Your task to perform on an android device: delete browsing data in the chrome app Image 0: 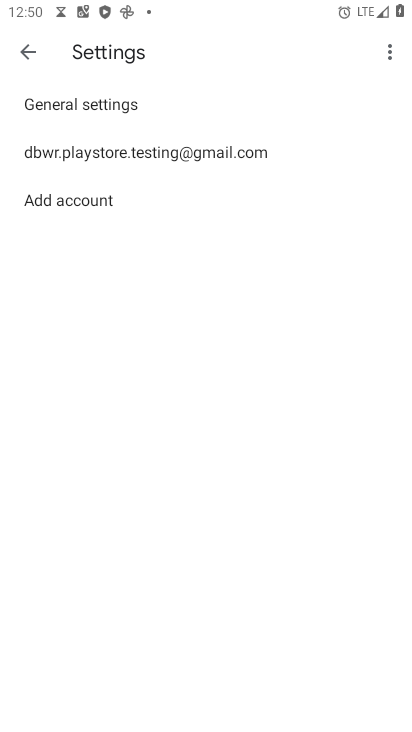
Step 0: press home button
Your task to perform on an android device: delete browsing data in the chrome app Image 1: 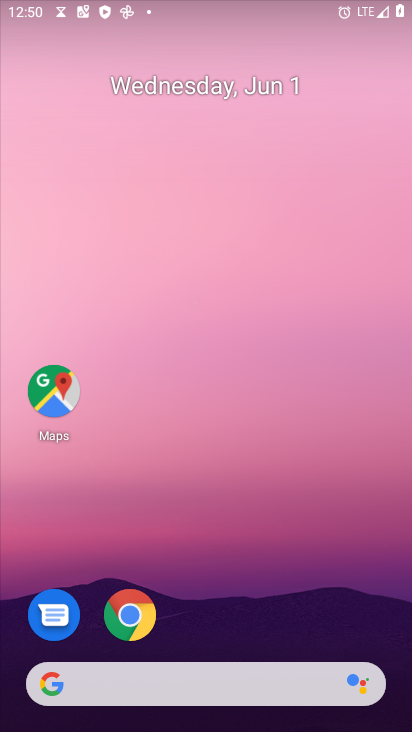
Step 1: drag from (370, 500) to (266, 8)
Your task to perform on an android device: delete browsing data in the chrome app Image 2: 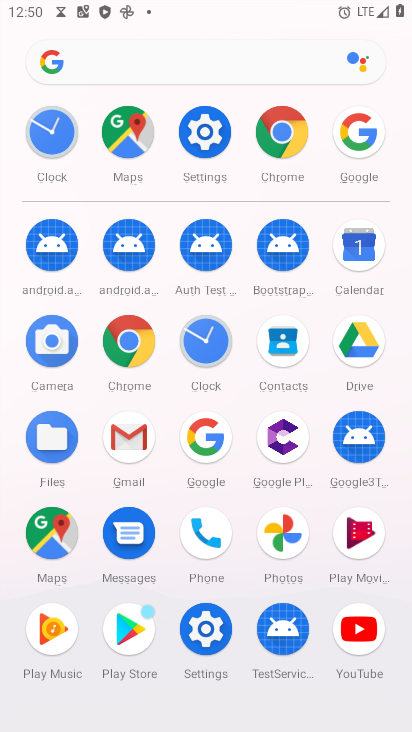
Step 2: click (277, 136)
Your task to perform on an android device: delete browsing data in the chrome app Image 3: 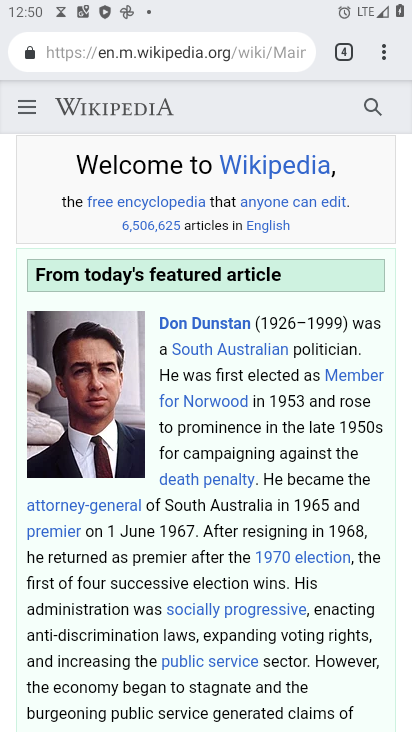
Step 3: drag from (379, 57) to (200, 278)
Your task to perform on an android device: delete browsing data in the chrome app Image 4: 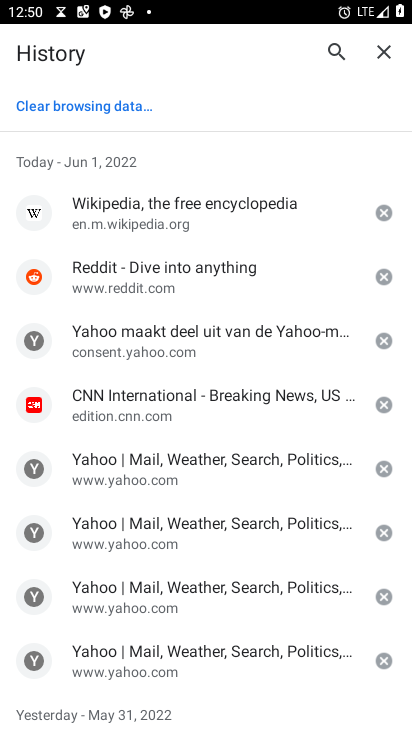
Step 4: click (90, 110)
Your task to perform on an android device: delete browsing data in the chrome app Image 5: 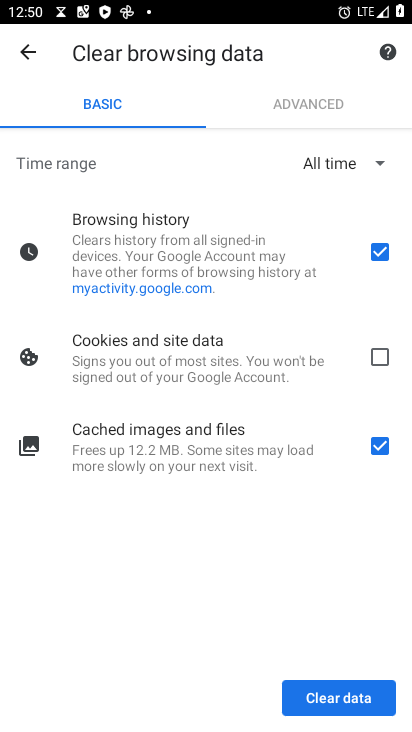
Step 5: click (386, 449)
Your task to perform on an android device: delete browsing data in the chrome app Image 6: 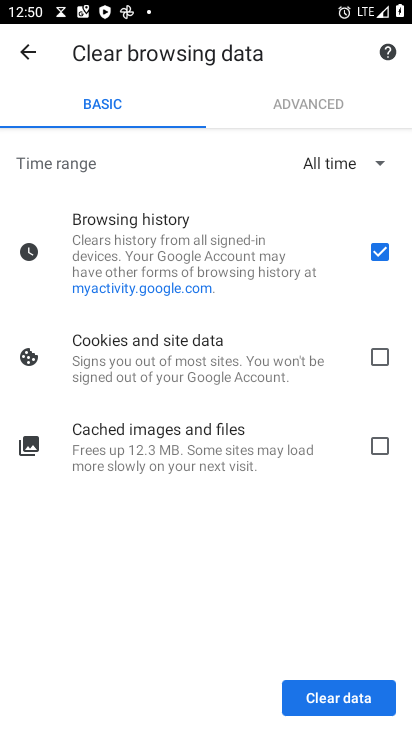
Step 6: click (362, 682)
Your task to perform on an android device: delete browsing data in the chrome app Image 7: 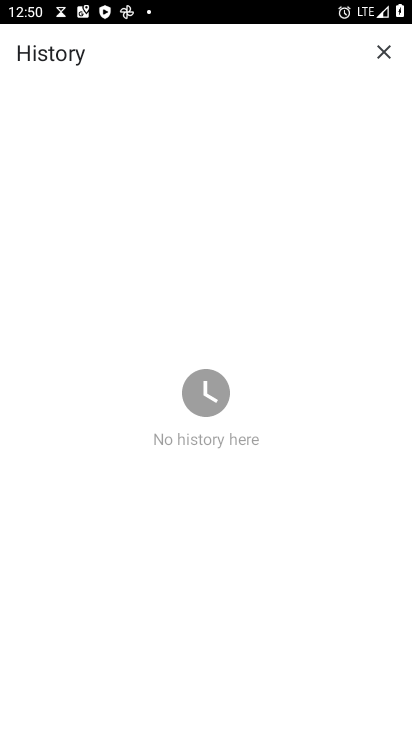
Step 7: task complete